Your task to perform on an android device: turn on sleep mode Image 0: 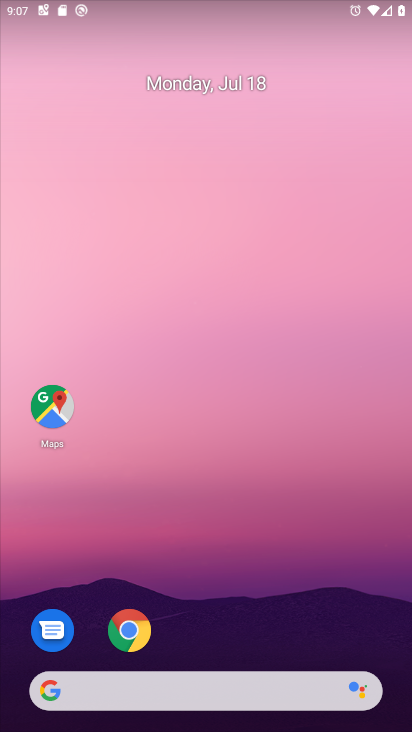
Step 0: drag from (202, 627) to (181, 85)
Your task to perform on an android device: turn on sleep mode Image 1: 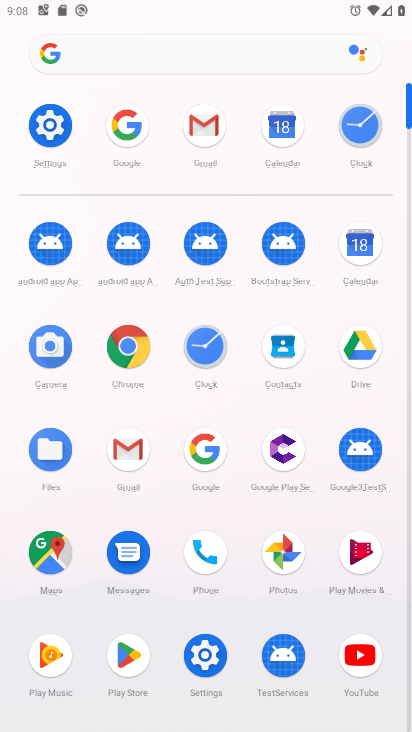
Step 1: click (55, 132)
Your task to perform on an android device: turn on sleep mode Image 2: 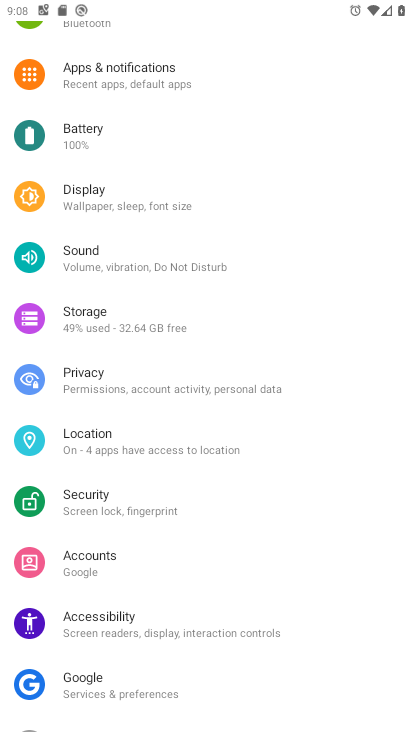
Step 2: click (155, 208)
Your task to perform on an android device: turn on sleep mode Image 3: 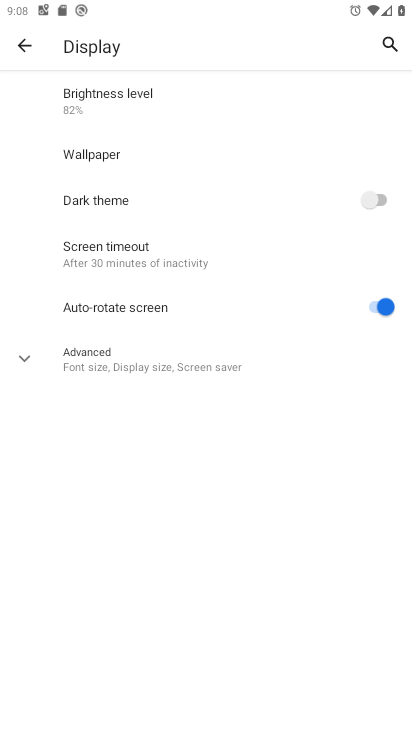
Step 3: click (180, 263)
Your task to perform on an android device: turn on sleep mode Image 4: 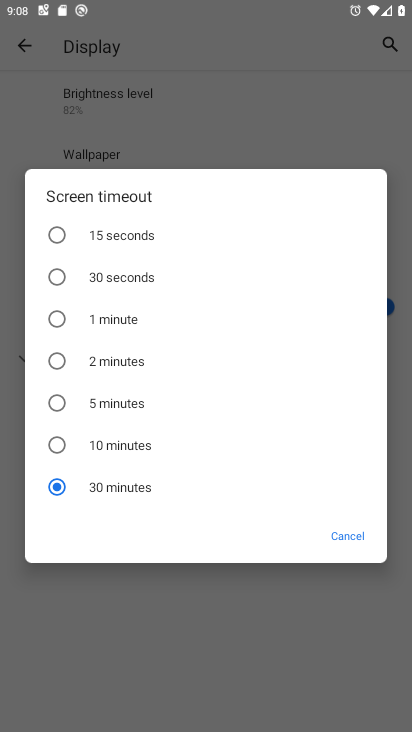
Step 4: click (115, 360)
Your task to perform on an android device: turn on sleep mode Image 5: 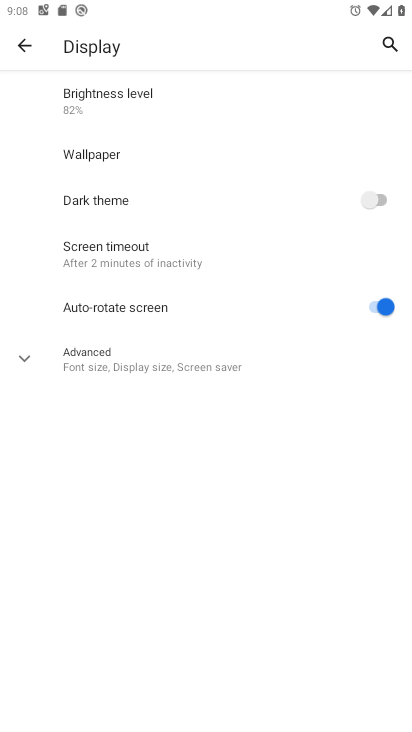
Step 5: task complete